Your task to perform on an android device: change the clock display to analog Image 0: 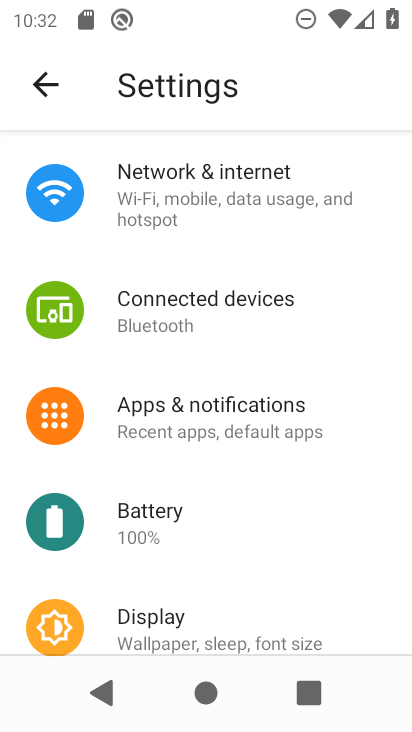
Step 0: press back button
Your task to perform on an android device: change the clock display to analog Image 1: 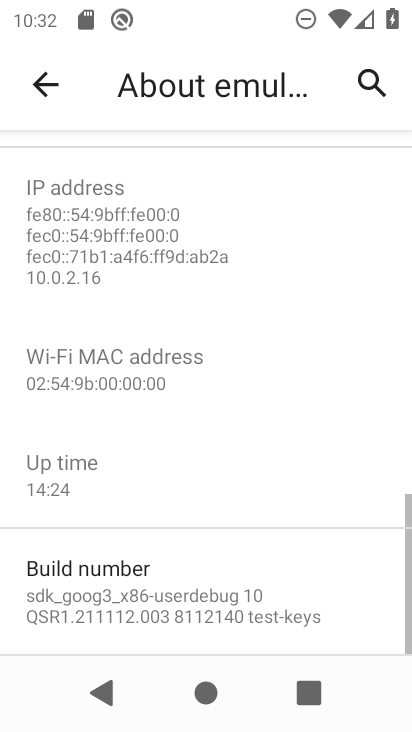
Step 1: press home button
Your task to perform on an android device: change the clock display to analog Image 2: 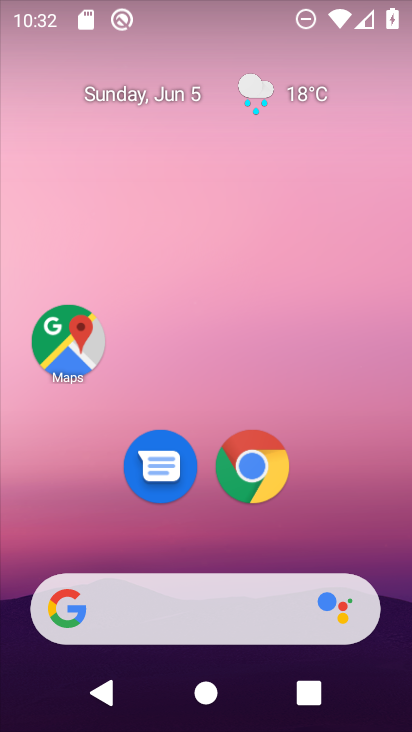
Step 2: drag from (385, 532) to (240, 23)
Your task to perform on an android device: change the clock display to analog Image 3: 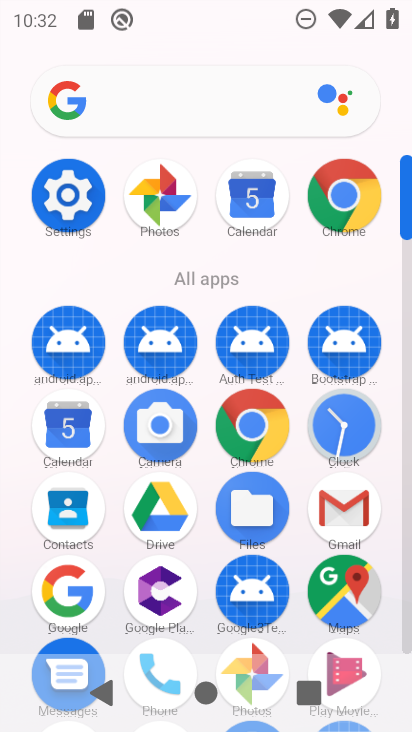
Step 3: click (340, 423)
Your task to perform on an android device: change the clock display to analog Image 4: 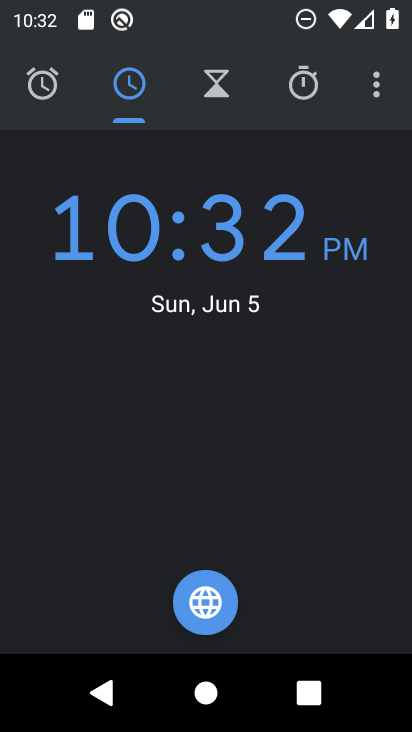
Step 4: drag from (379, 84) to (227, 165)
Your task to perform on an android device: change the clock display to analog Image 5: 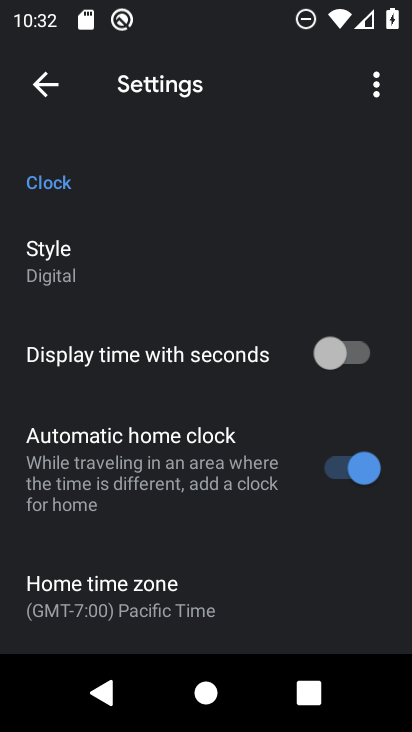
Step 5: click (108, 261)
Your task to perform on an android device: change the clock display to analog Image 6: 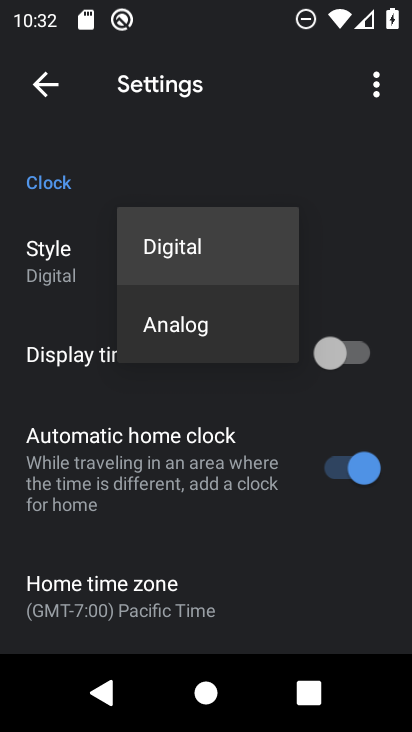
Step 6: click (180, 327)
Your task to perform on an android device: change the clock display to analog Image 7: 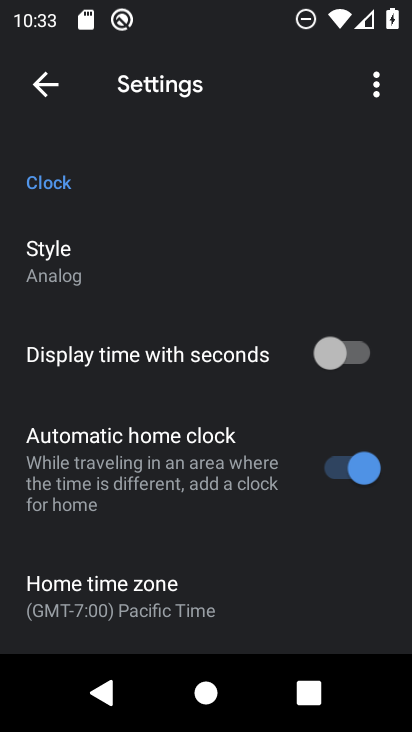
Step 7: task complete